Your task to perform on an android device: change the clock display to digital Image 0: 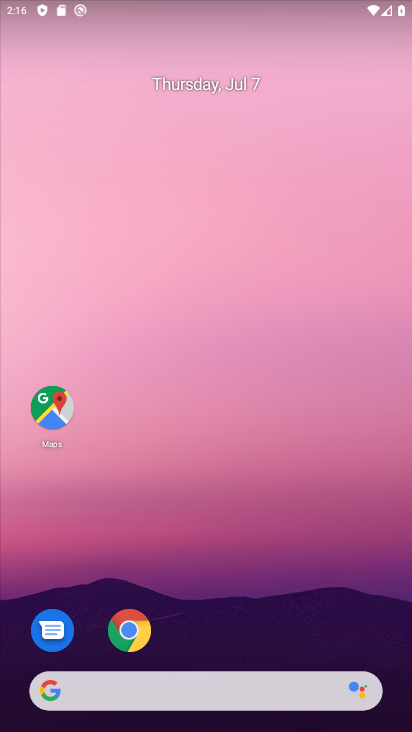
Step 0: drag from (276, 665) to (364, 123)
Your task to perform on an android device: change the clock display to digital Image 1: 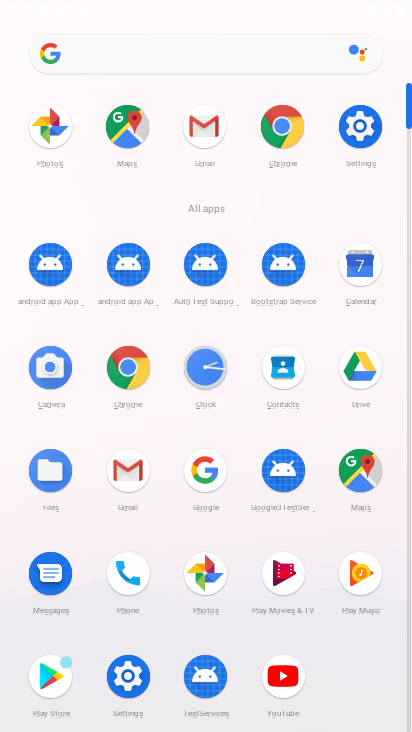
Step 1: click (218, 383)
Your task to perform on an android device: change the clock display to digital Image 2: 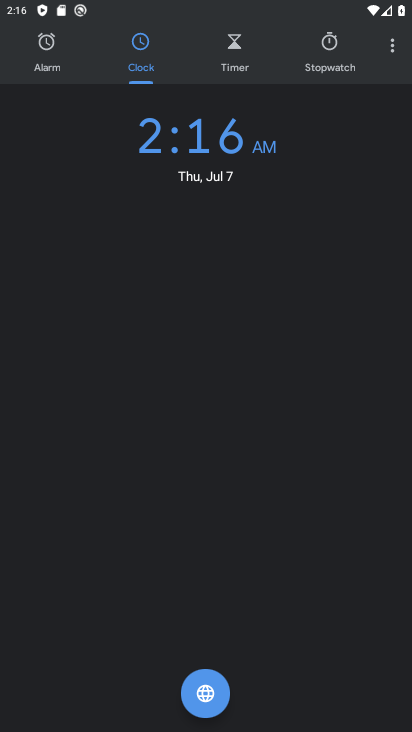
Step 2: click (393, 37)
Your task to perform on an android device: change the clock display to digital Image 3: 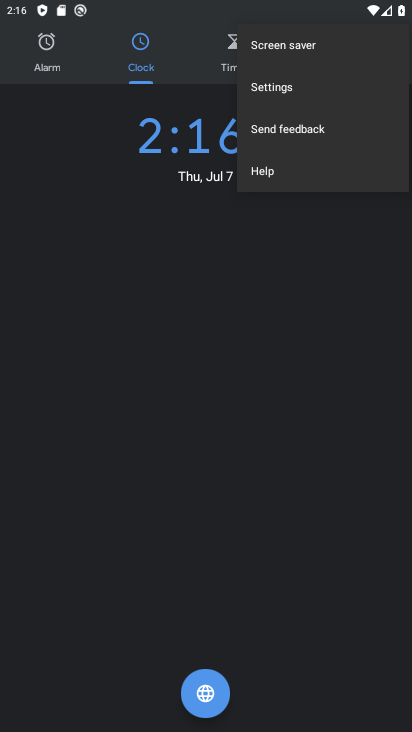
Step 3: click (318, 97)
Your task to perform on an android device: change the clock display to digital Image 4: 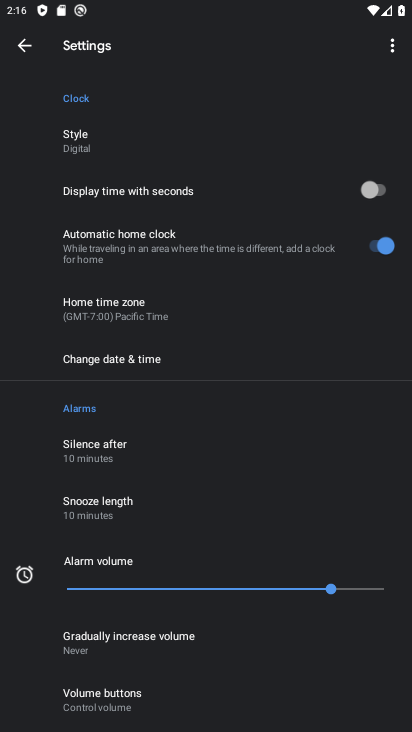
Step 4: click (161, 141)
Your task to perform on an android device: change the clock display to digital Image 5: 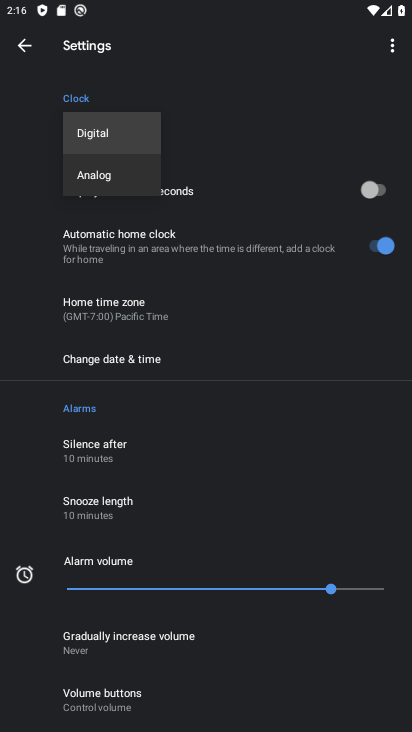
Step 5: task complete